Your task to perform on an android device: Turn off the flashlight Image 0: 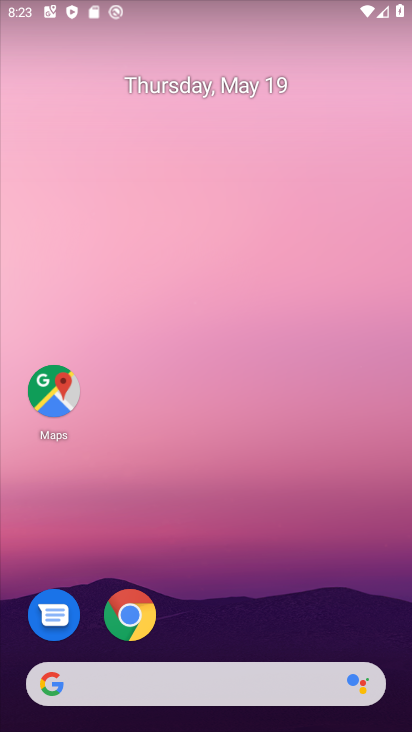
Step 0: drag from (271, 585) to (261, 82)
Your task to perform on an android device: Turn off the flashlight Image 1: 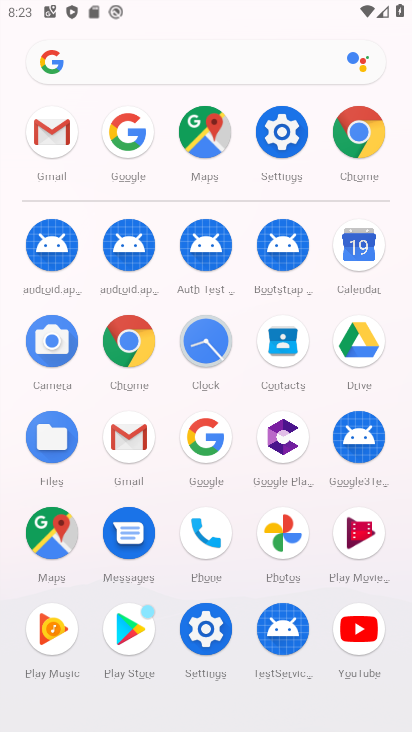
Step 1: click (198, 629)
Your task to perform on an android device: Turn off the flashlight Image 2: 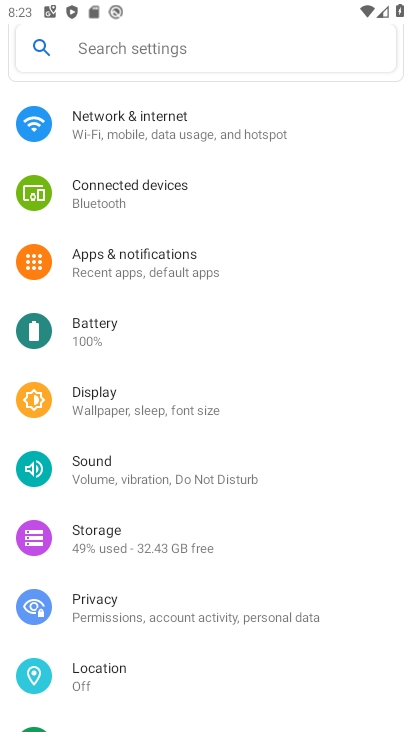
Step 2: click (190, 45)
Your task to perform on an android device: Turn off the flashlight Image 3: 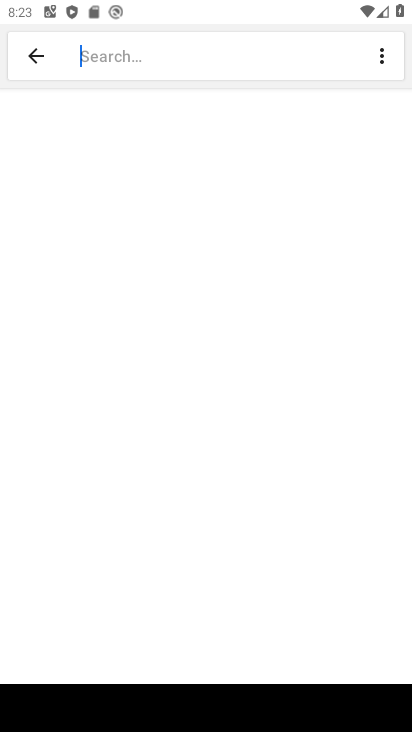
Step 3: type "flash"
Your task to perform on an android device: Turn off the flashlight Image 4: 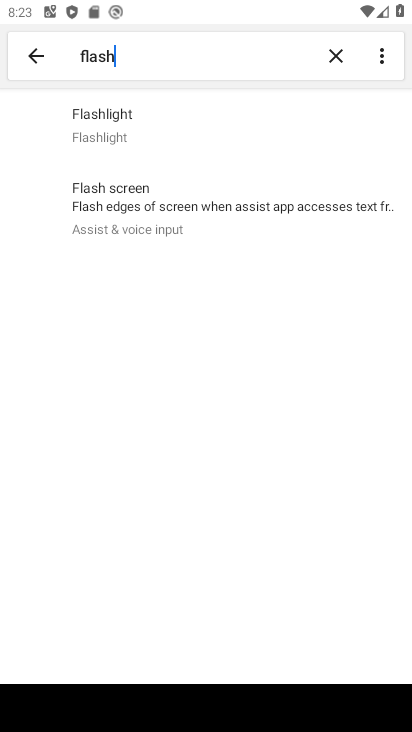
Step 4: task complete